Your task to perform on an android device: all mails in gmail Image 0: 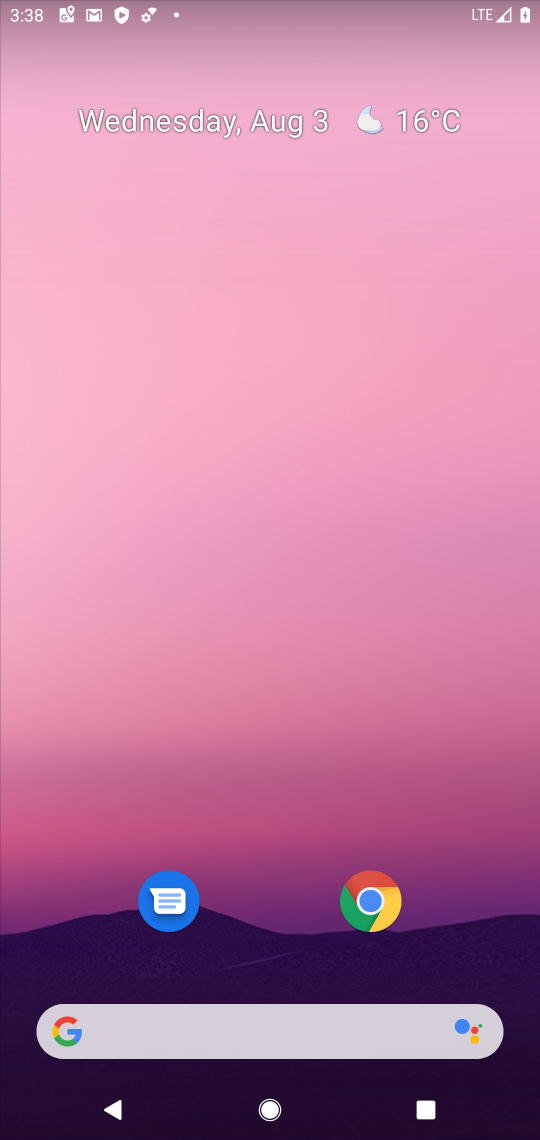
Step 0: drag from (197, 629) to (256, 205)
Your task to perform on an android device: all mails in gmail Image 1: 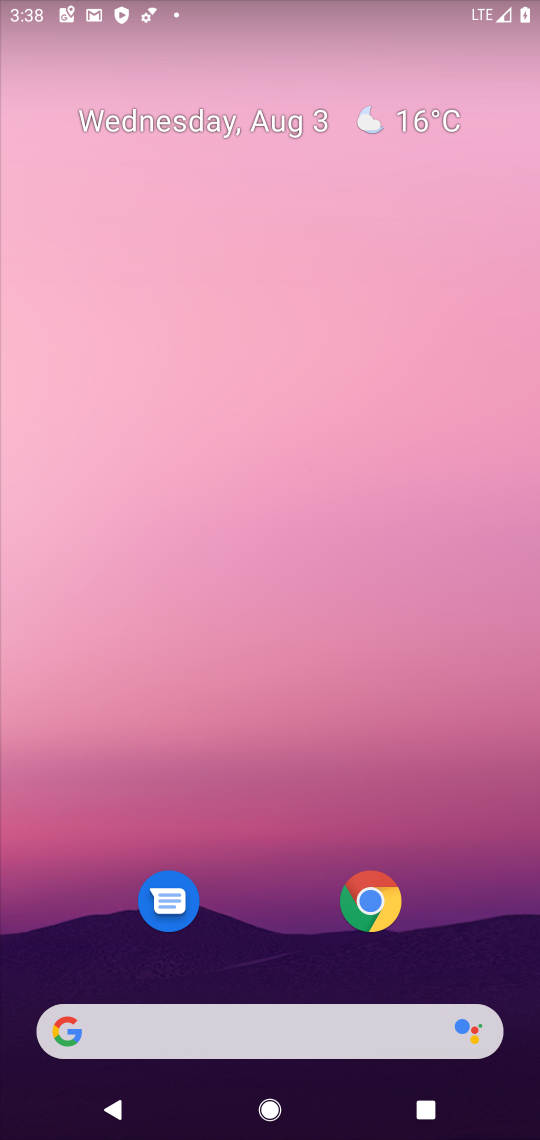
Step 1: click (254, 27)
Your task to perform on an android device: all mails in gmail Image 2: 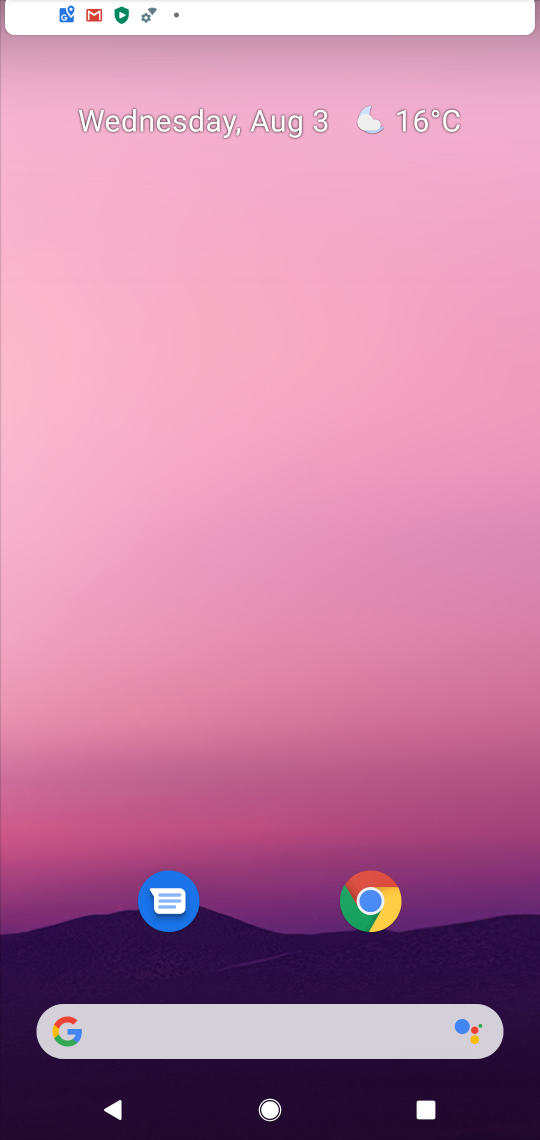
Step 2: drag from (251, 923) to (263, 310)
Your task to perform on an android device: all mails in gmail Image 3: 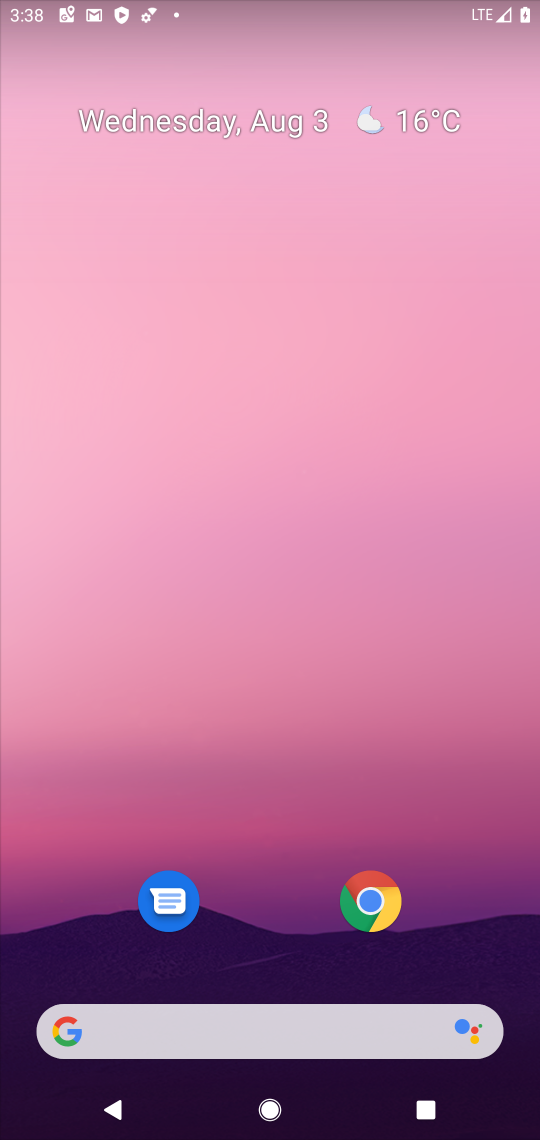
Step 3: drag from (240, 993) to (246, 317)
Your task to perform on an android device: all mails in gmail Image 4: 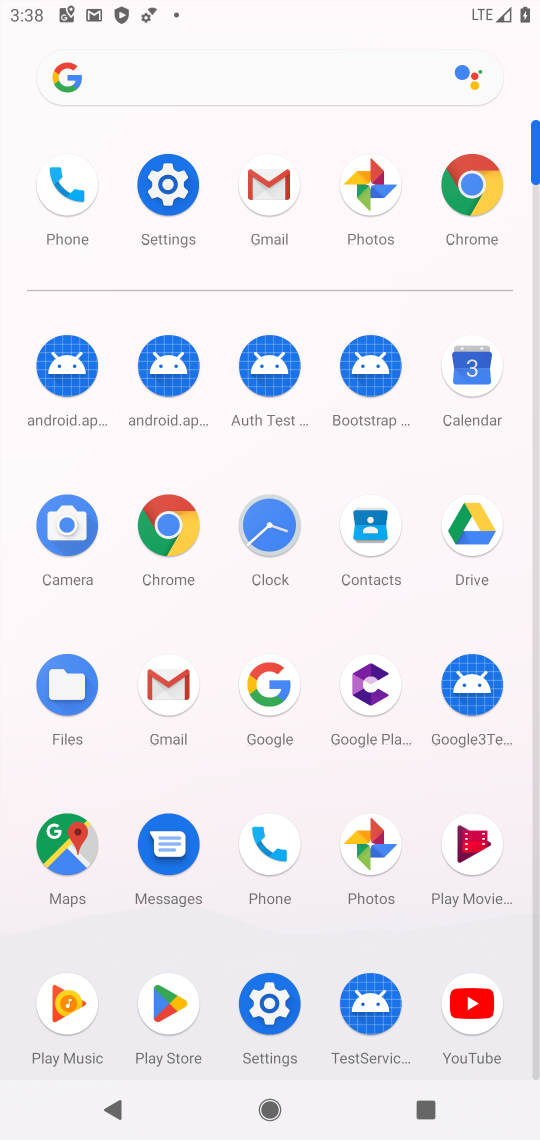
Step 4: click (164, 668)
Your task to perform on an android device: all mails in gmail Image 5: 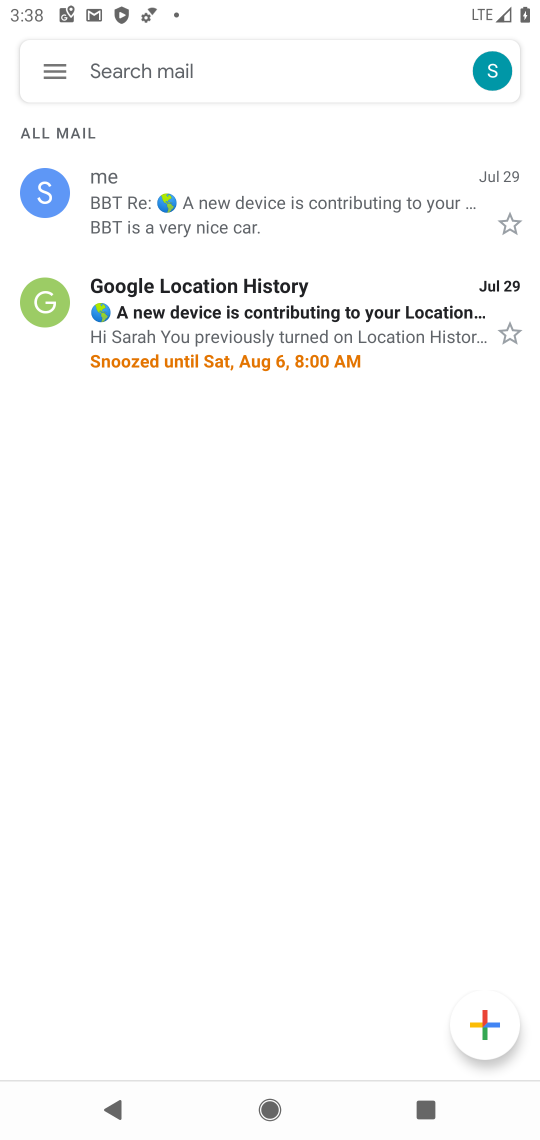
Step 5: click (39, 77)
Your task to perform on an android device: all mails in gmail Image 6: 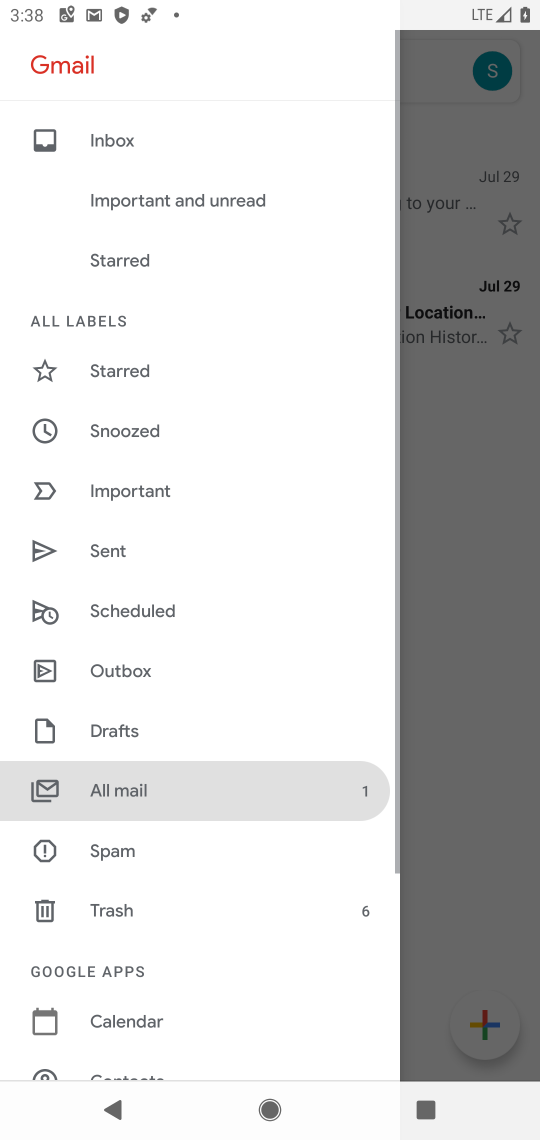
Step 6: click (147, 802)
Your task to perform on an android device: all mails in gmail Image 7: 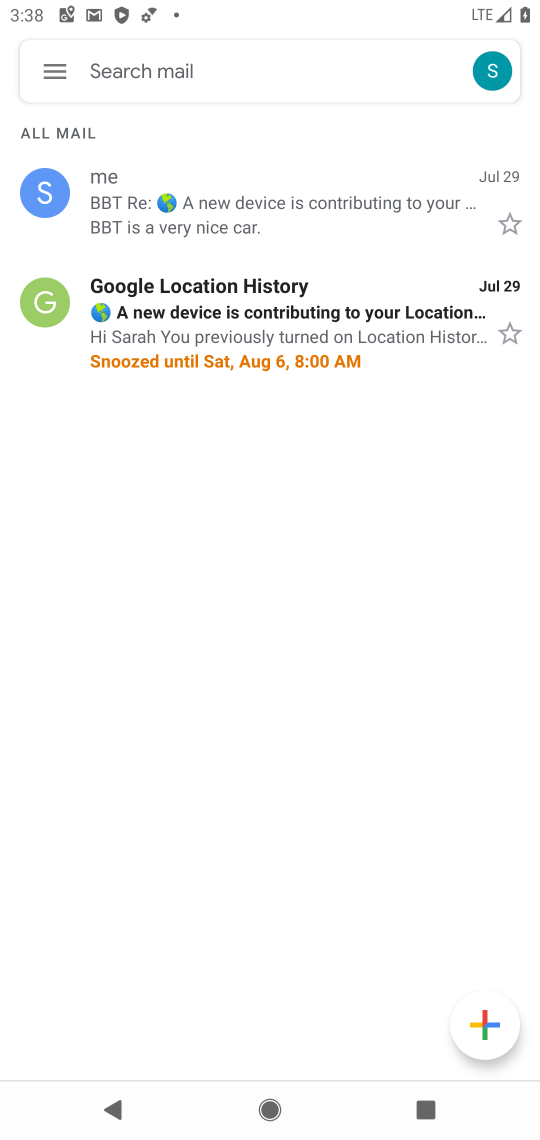
Step 7: task complete